Your task to perform on an android device: find which apps use the phone's location Image 0: 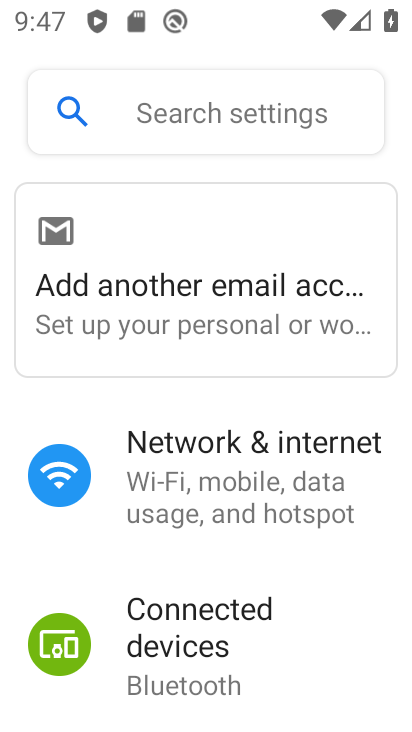
Step 0: press home button
Your task to perform on an android device: find which apps use the phone's location Image 1: 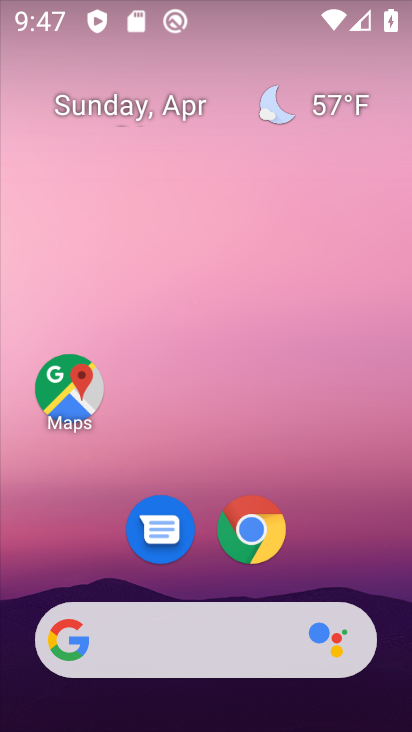
Step 1: drag from (334, 576) to (239, 35)
Your task to perform on an android device: find which apps use the phone's location Image 2: 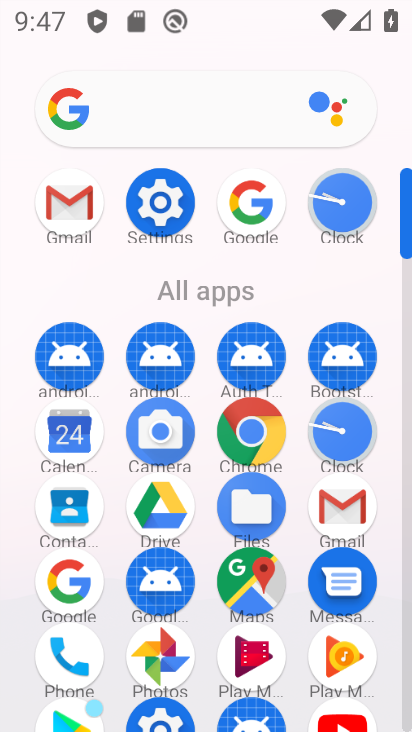
Step 2: click (158, 221)
Your task to perform on an android device: find which apps use the phone's location Image 3: 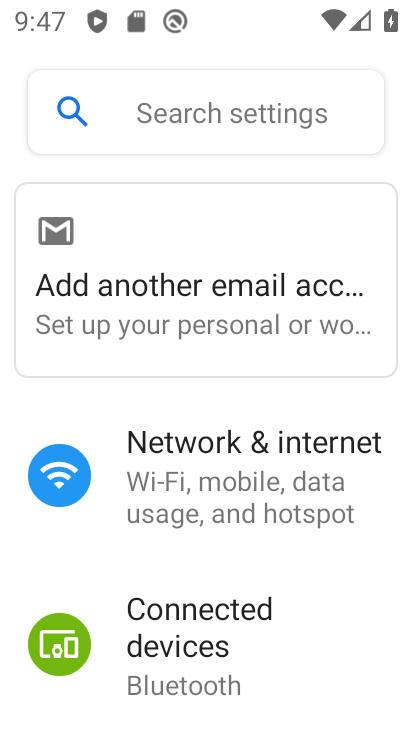
Step 3: drag from (267, 680) to (212, 59)
Your task to perform on an android device: find which apps use the phone's location Image 4: 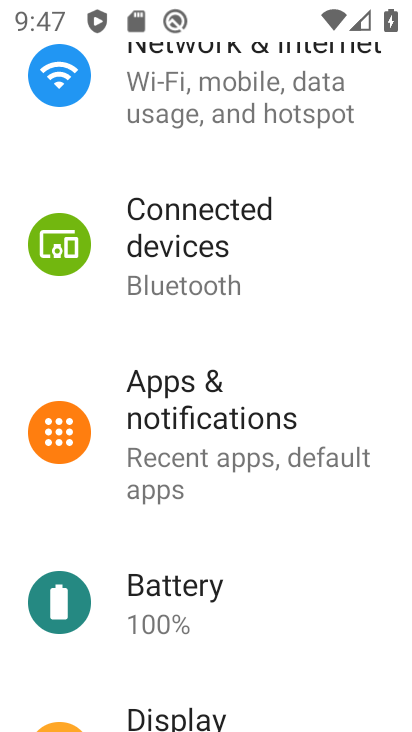
Step 4: drag from (276, 719) to (227, 2)
Your task to perform on an android device: find which apps use the phone's location Image 5: 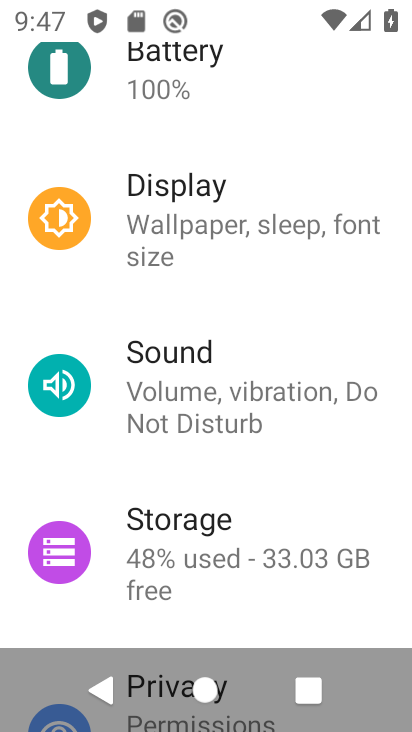
Step 5: drag from (285, 622) to (221, 68)
Your task to perform on an android device: find which apps use the phone's location Image 6: 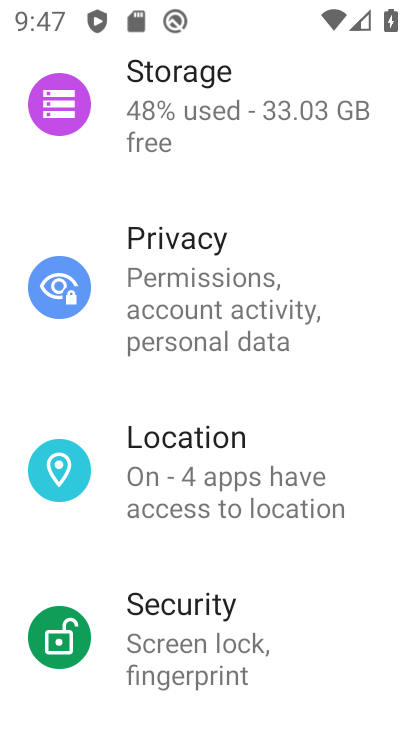
Step 6: click (171, 488)
Your task to perform on an android device: find which apps use the phone's location Image 7: 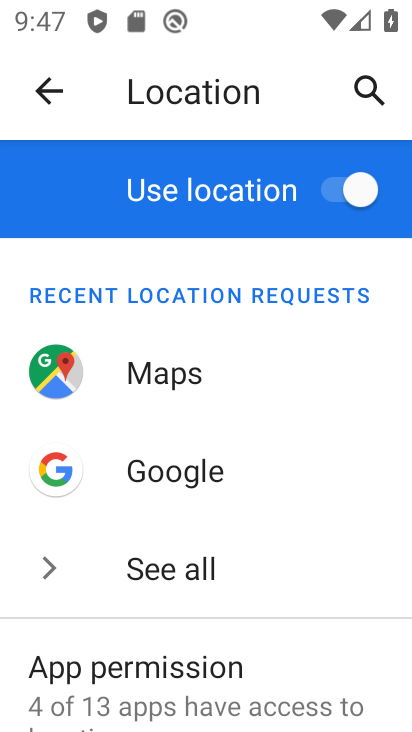
Step 7: click (220, 712)
Your task to perform on an android device: find which apps use the phone's location Image 8: 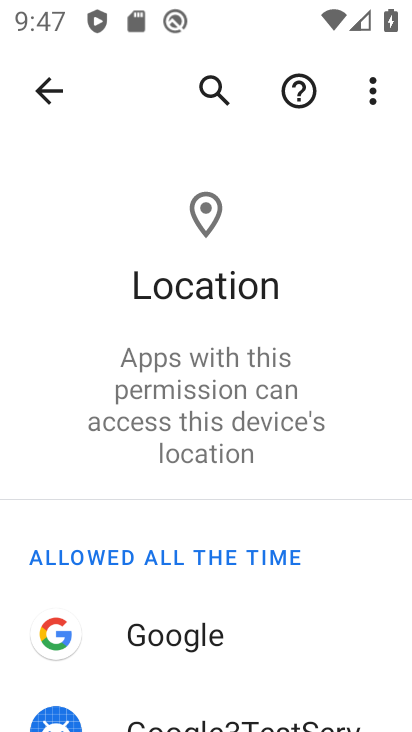
Step 8: task complete